Your task to perform on an android device: see sites visited before in the chrome app Image 0: 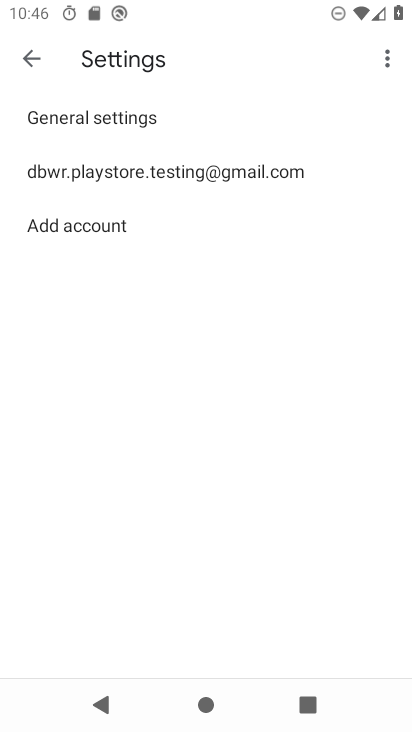
Step 0: press home button
Your task to perform on an android device: see sites visited before in the chrome app Image 1: 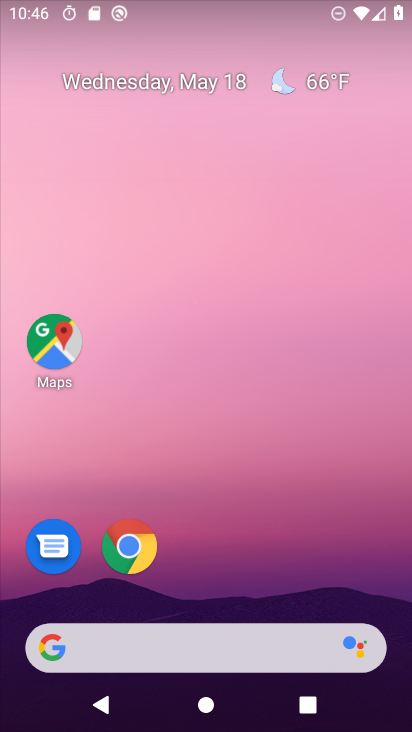
Step 1: click (134, 547)
Your task to perform on an android device: see sites visited before in the chrome app Image 2: 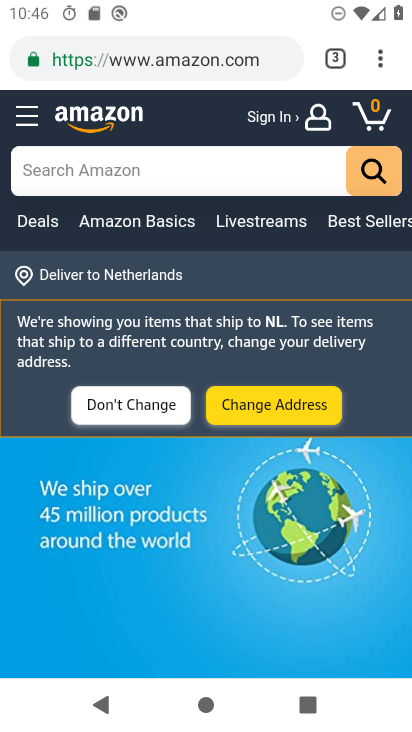
Step 2: click (389, 47)
Your task to perform on an android device: see sites visited before in the chrome app Image 3: 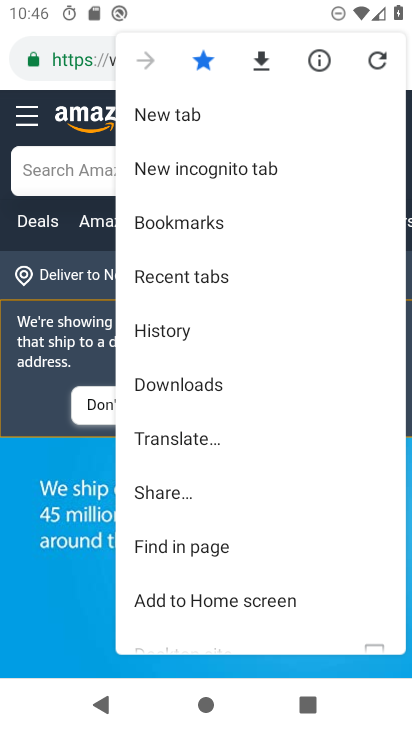
Step 3: click (191, 279)
Your task to perform on an android device: see sites visited before in the chrome app Image 4: 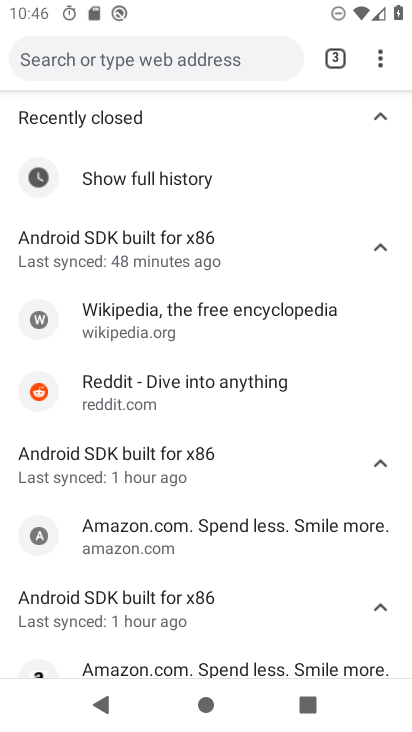
Step 4: task complete